Your task to perform on an android device: change the upload size in google photos Image 0: 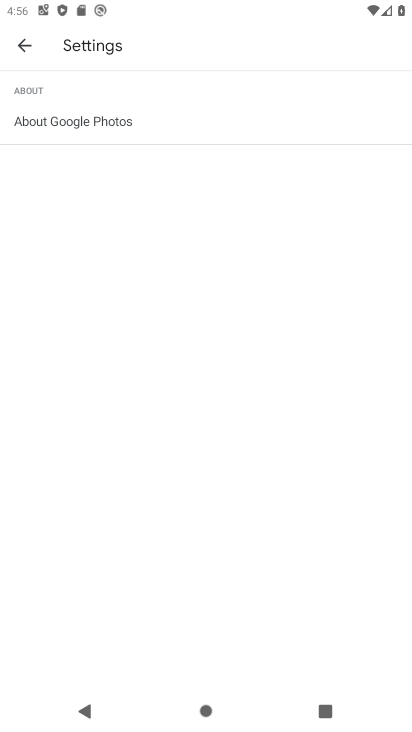
Step 0: press home button
Your task to perform on an android device: change the upload size in google photos Image 1: 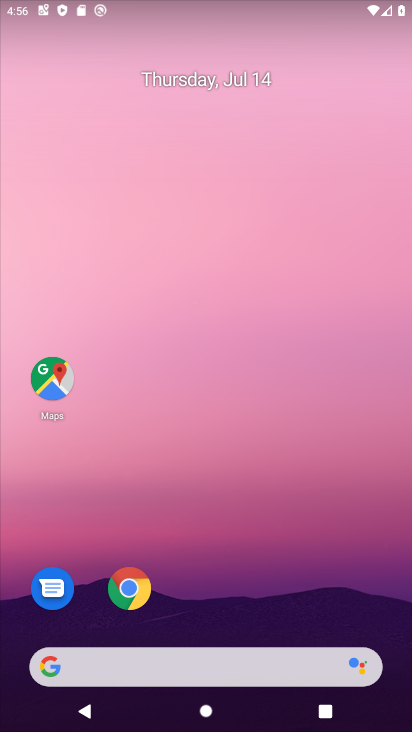
Step 1: drag from (88, 588) to (112, 445)
Your task to perform on an android device: change the upload size in google photos Image 2: 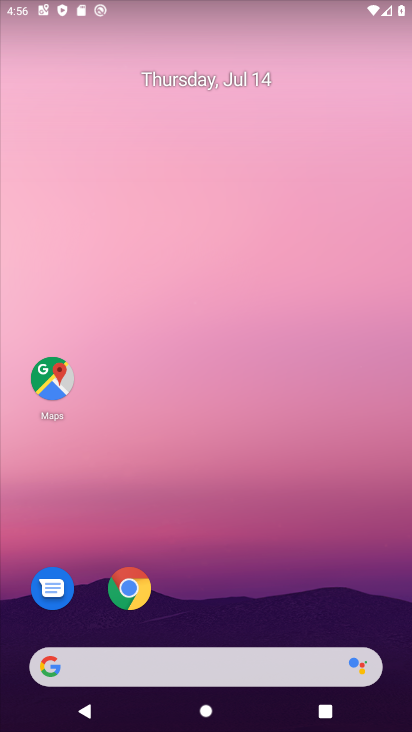
Step 2: drag from (227, 605) to (225, 502)
Your task to perform on an android device: change the upload size in google photos Image 3: 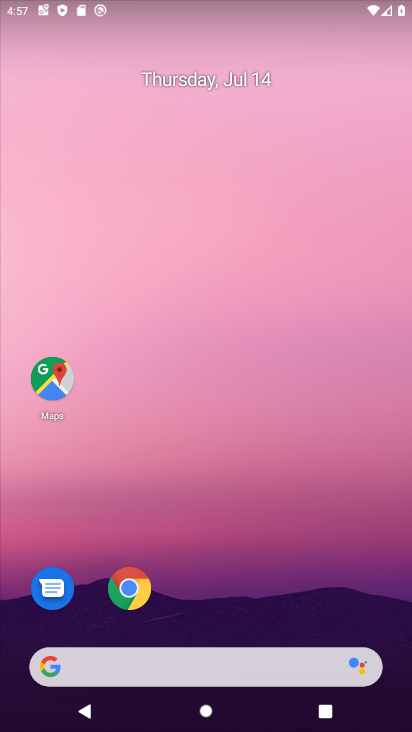
Step 3: drag from (198, 536) to (219, 429)
Your task to perform on an android device: change the upload size in google photos Image 4: 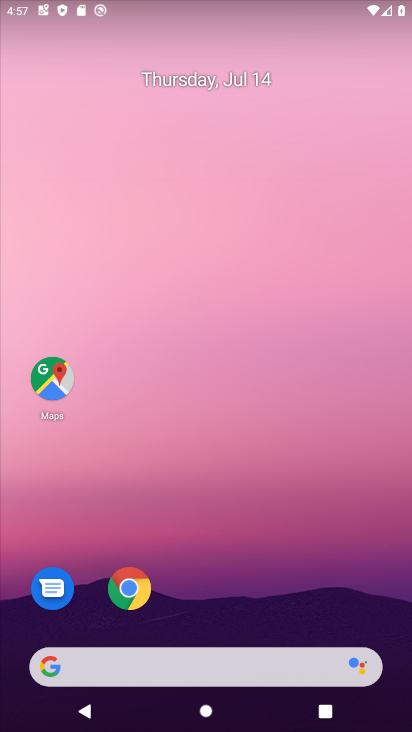
Step 4: drag from (177, 638) to (210, 312)
Your task to perform on an android device: change the upload size in google photos Image 5: 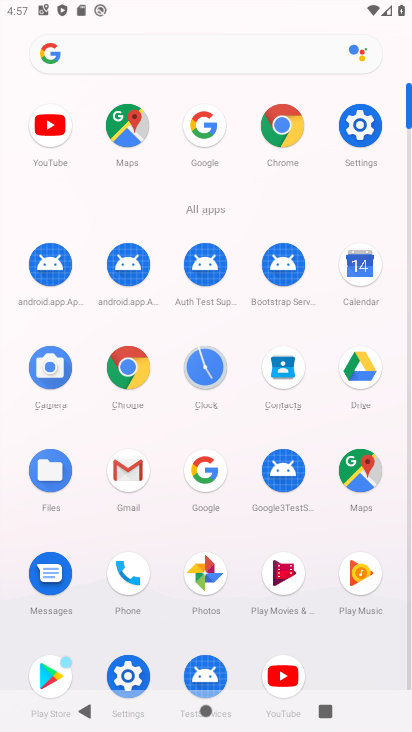
Step 5: click (222, 573)
Your task to perform on an android device: change the upload size in google photos Image 6: 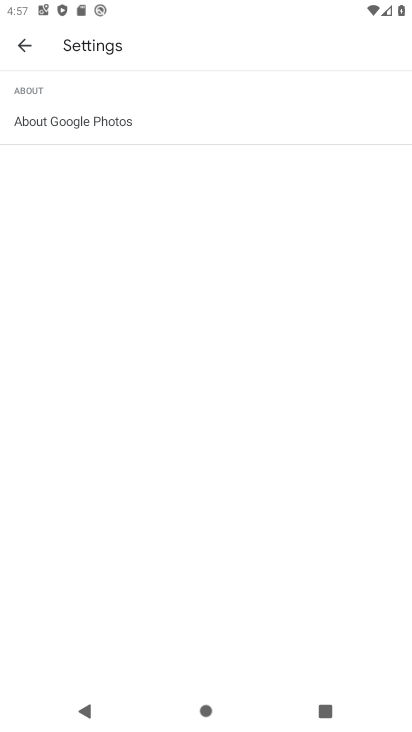
Step 6: click (13, 48)
Your task to perform on an android device: change the upload size in google photos Image 7: 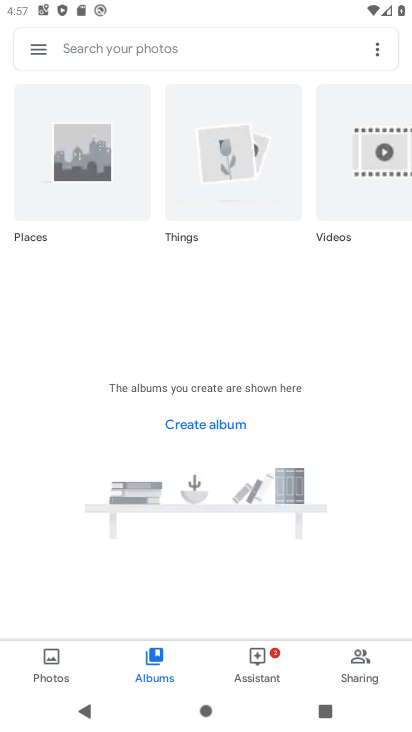
Step 7: click (30, 68)
Your task to perform on an android device: change the upload size in google photos Image 8: 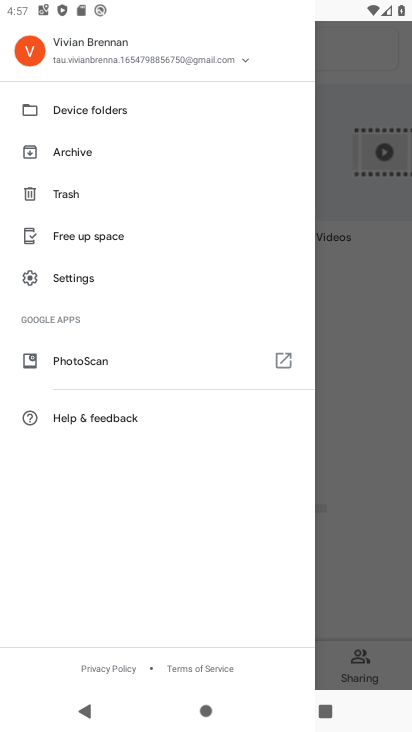
Step 8: click (67, 282)
Your task to perform on an android device: change the upload size in google photos Image 9: 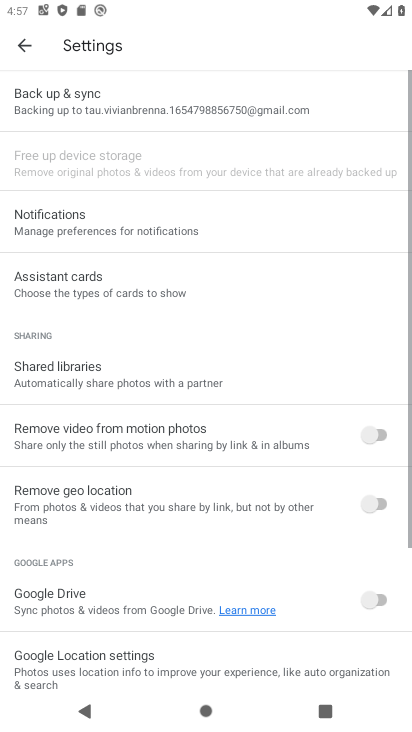
Step 9: click (43, 101)
Your task to perform on an android device: change the upload size in google photos Image 10: 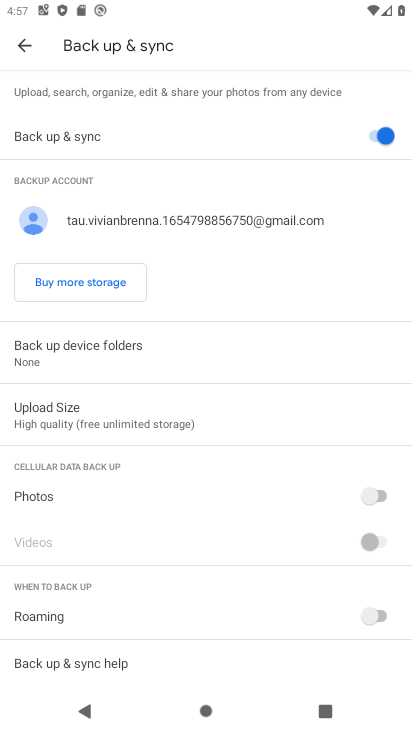
Step 10: click (59, 415)
Your task to perform on an android device: change the upload size in google photos Image 11: 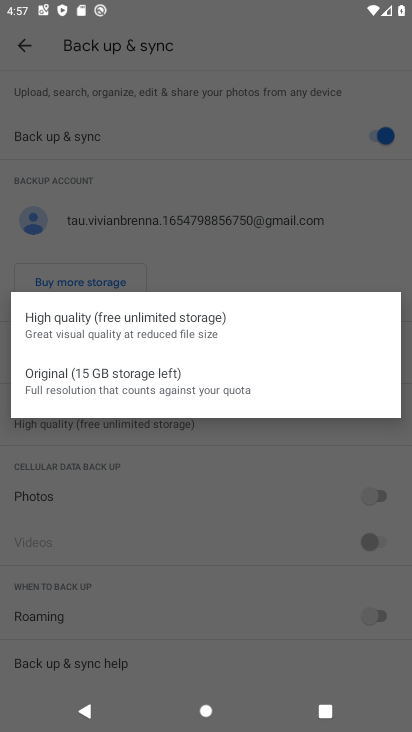
Step 11: click (50, 388)
Your task to perform on an android device: change the upload size in google photos Image 12: 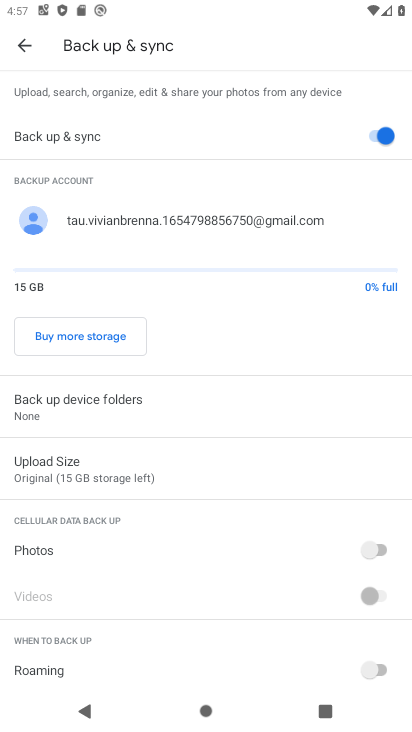
Step 12: task complete